Your task to perform on an android device: Check the weather Image 0: 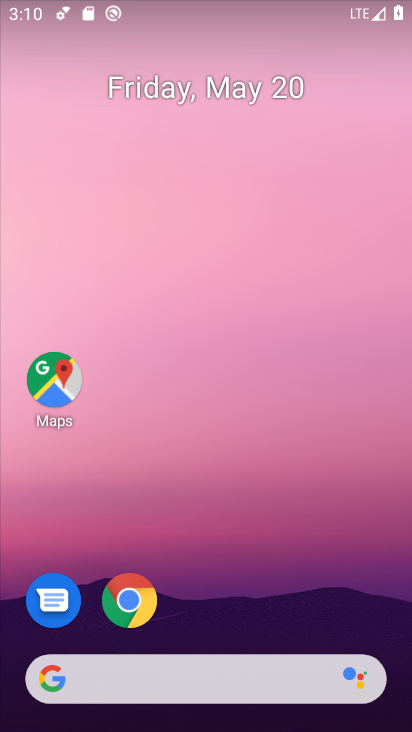
Step 0: drag from (373, 605) to (372, 255)
Your task to perform on an android device: Check the weather Image 1: 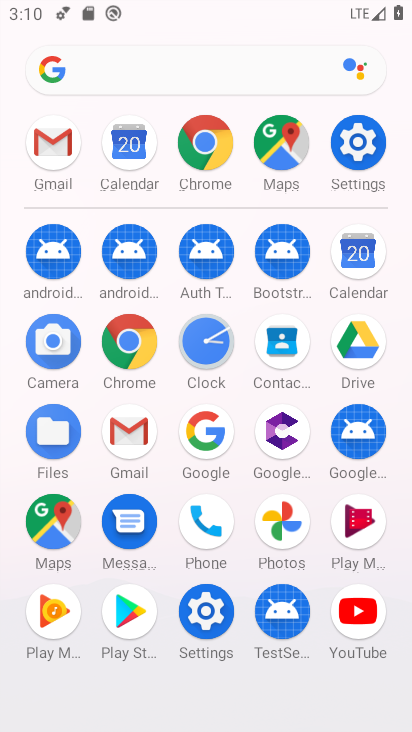
Step 1: click (208, 433)
Your task to perform on an android device: Check the weather Image 2: 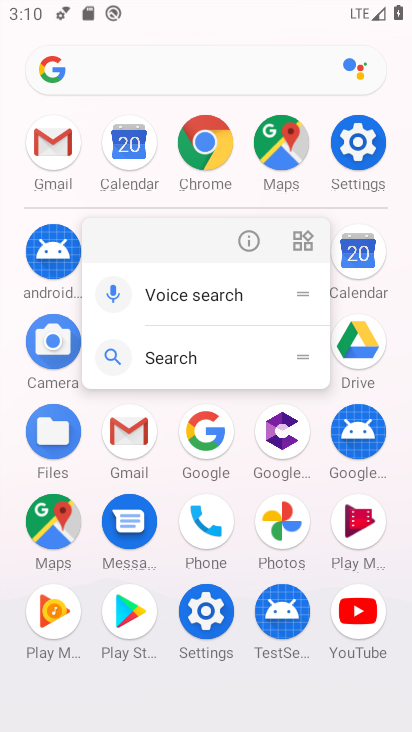
Step 2: click (213, 435)
Your task to perform on an android device: Check the weather Image 3: 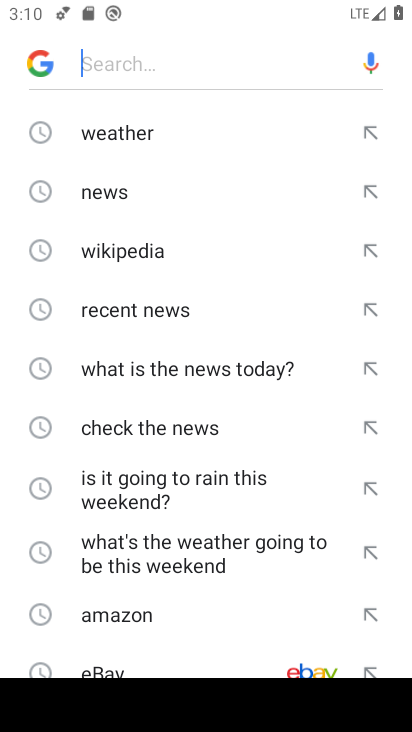
Step 3: click (138, 128)
Your task to perform on an android device: Check the weather Image 4: 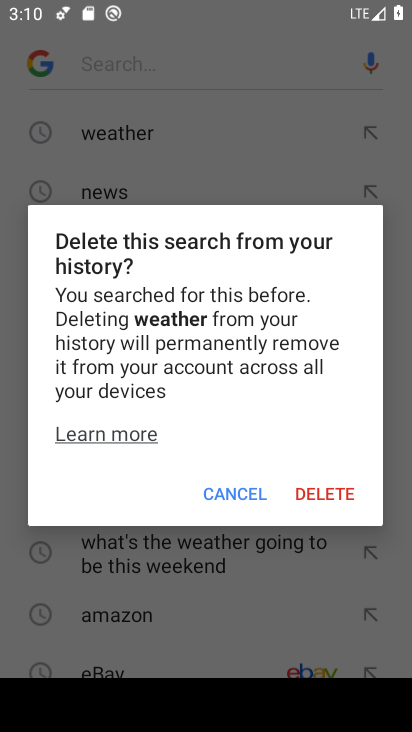
Step 4: click (223, 490)
Your task to perform on an android device: Check the weather Image 5: 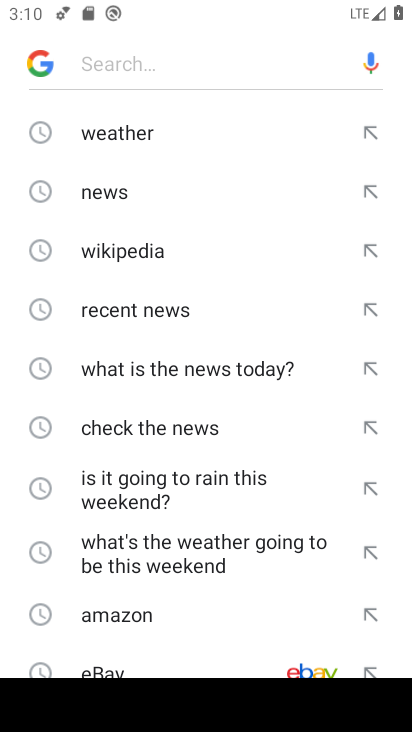
Step 5: click (132, 130)
Your task to perform on an android device: Check the weather Image 6: 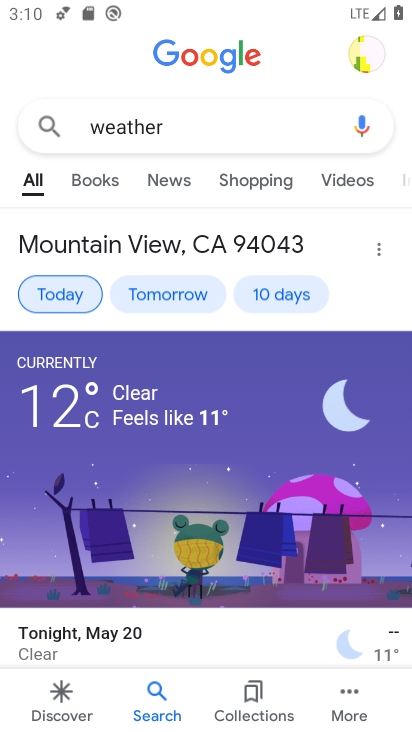
Step 6: task complete